Your task to perform on an android device: What's on my calendar today? Image 0: 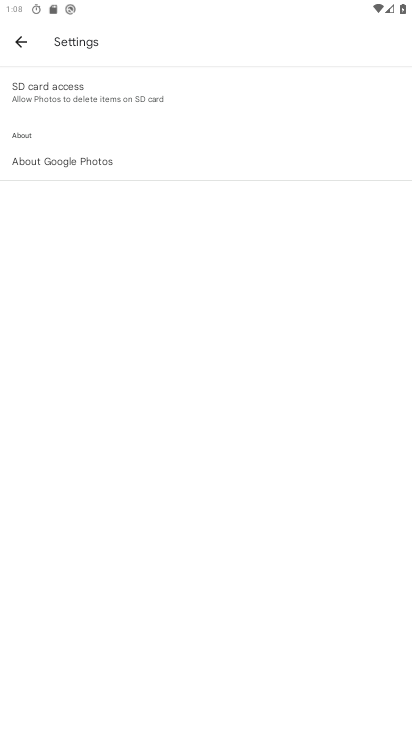
Step 0: press home button
Your task to perform on an android device: What's on my calendar today? Image 1: 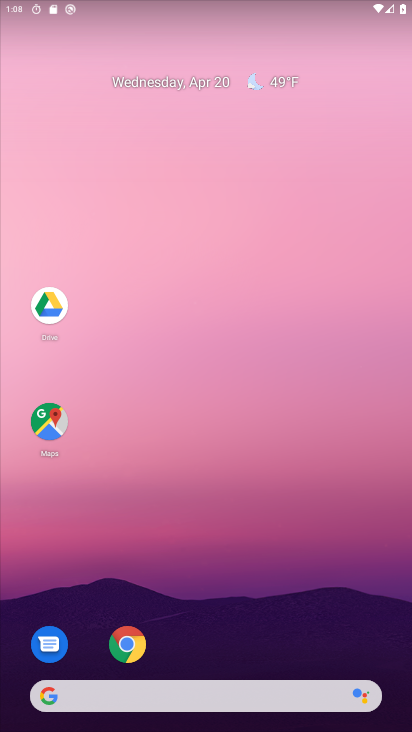
Step 1: drag from (231, 350) to (231, 95)
Your task to perform on an android device: What's on my calendar today? Image 2: 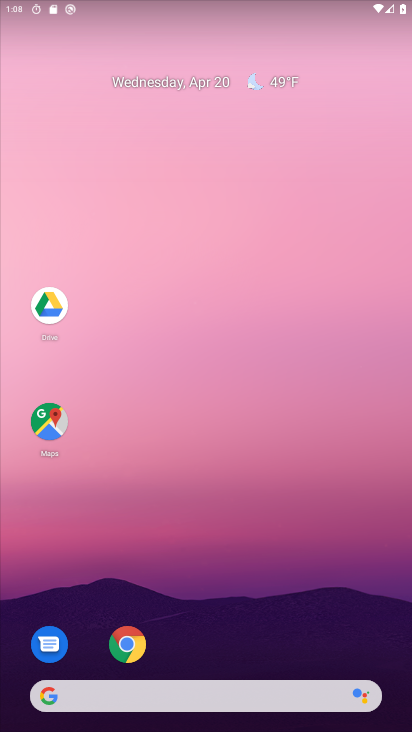
Step 2: drag from (195, 613) to (199, 101)
Your task to perform on an android device: What's on my calendar today? Image 3: 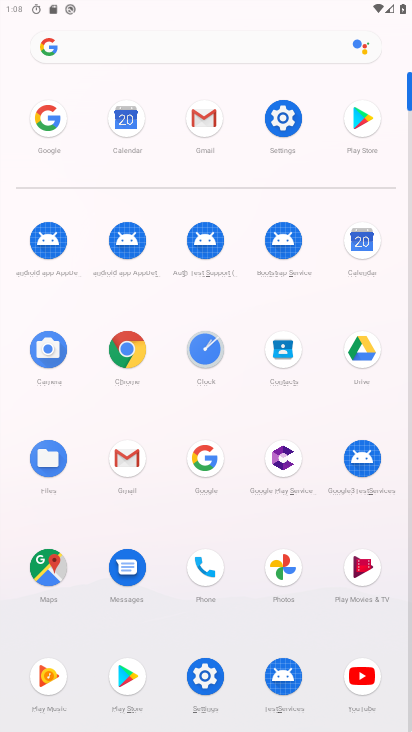
Step 3: click (354, 239)
Your task to perform on an android device: What's on my calendar today? Image 4: 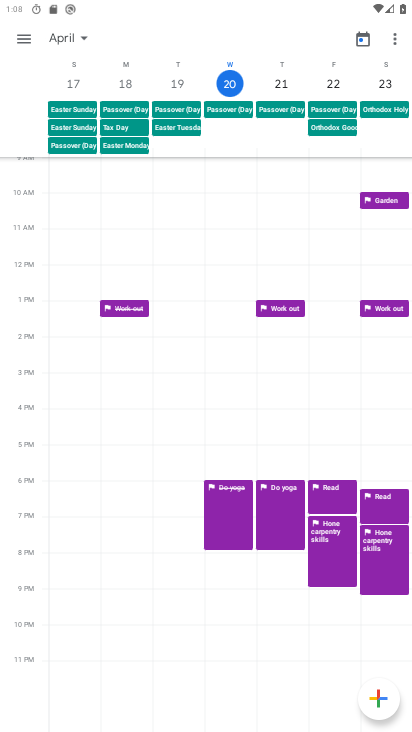
Step 4: click (18, 34)
Your task to perform on an android device: What's on my calendar today? Image 5: 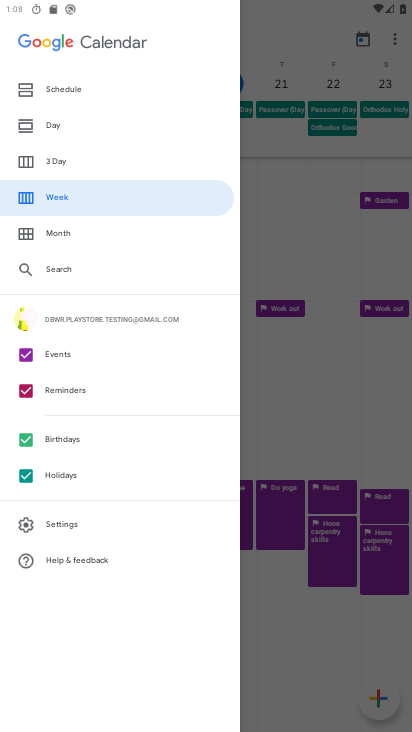
Step 5: click (68, 118)
Your task to perform on an android device: What's on my calendar today? Image 6: 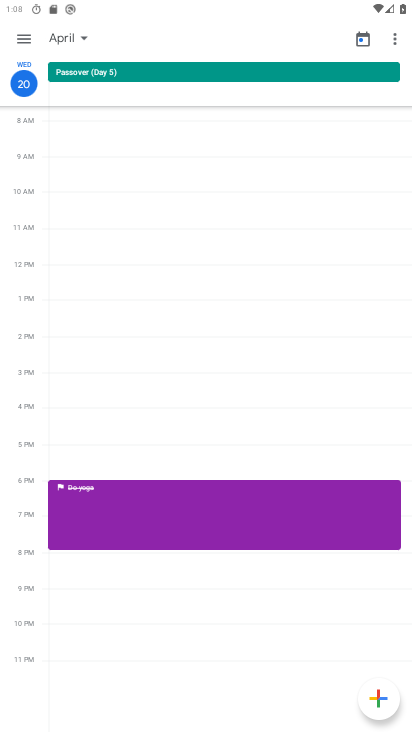
Step 6: task complete